Your task to perform on an android device: check the backup settings in the google photos Image 0: 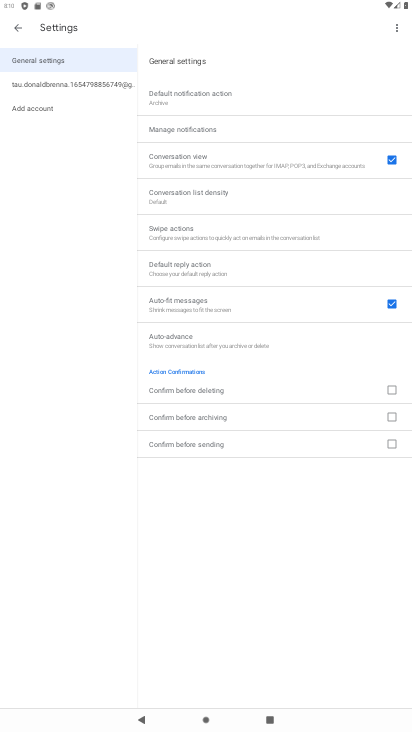
Step 0: press home button
Your task to perform on an android device: check the backup settings in the google photos Image 1: 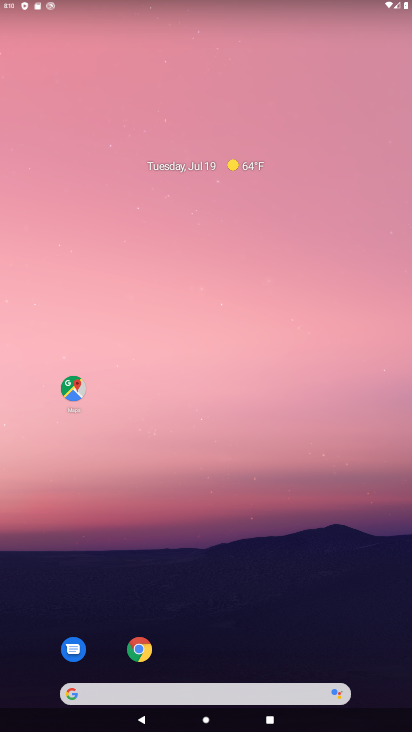
Step 1: drag from (203, 583) to (164, 143)
Your task to perform on an android device: check the backup settings in the google photos Image 2: 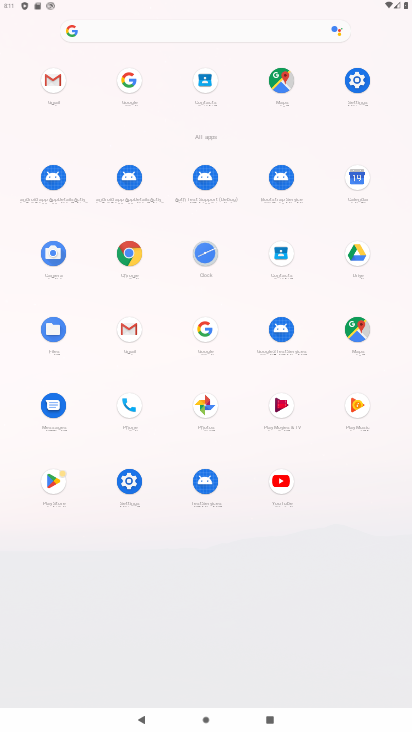
Step 2: click (207, 405)
Your task to perform on an android device: check the backup settings in the google photos Image 3: 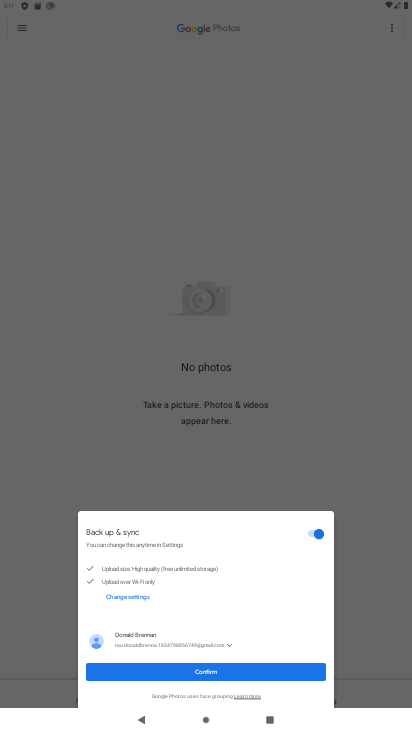
Step 3: click (205, 669)
Your task to perform on an android device: check the backup settings in the google photos Image 4: 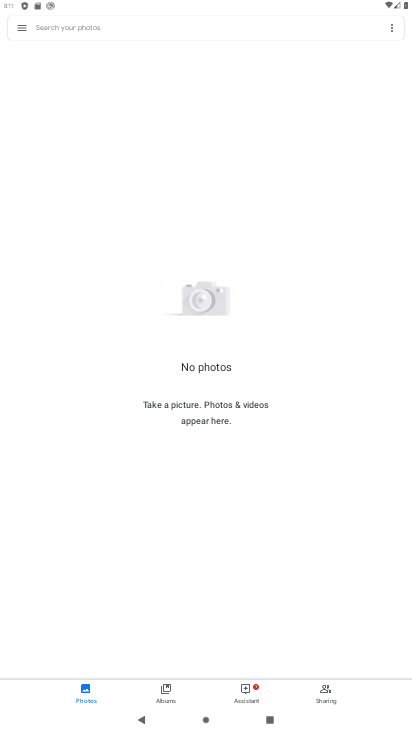
Step 4: click (24, 29)
Your task to perform on an android device: check the backup settings in the google photos Image 5: 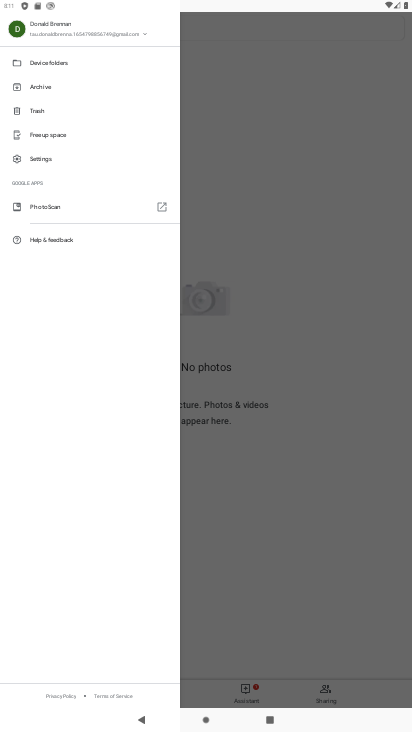
Step 5: click (52, 161)
Your task to perform on an android device: check the backup settings in the google photos Image 6: 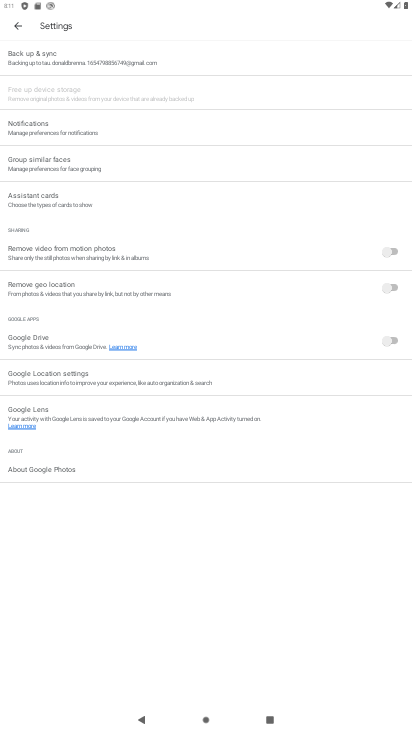
Step 6: click (78, 65)
Your task to perform on an android device: check the backup settings in the google photos Image 7: 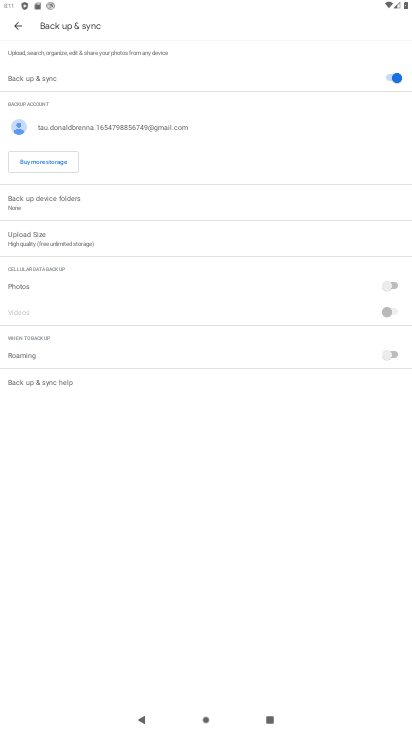
Step 7: click (95, 212)
Your task to perform on an android device: check the backup settings in the google photos Image 8: 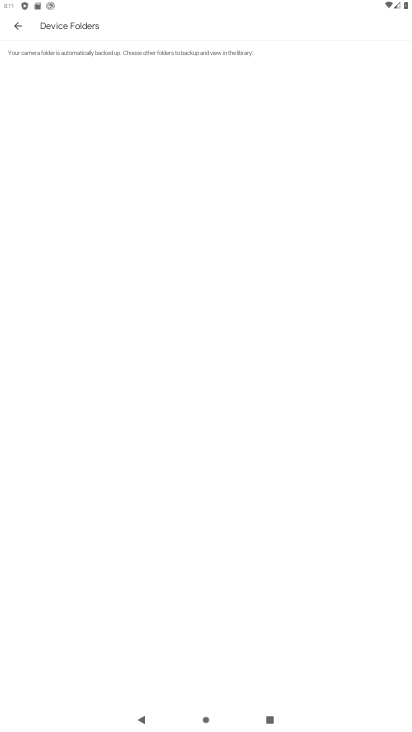
Step 8: task complete